Your task to perform on an android device: What's on my calendar tomorrow? Image 0: 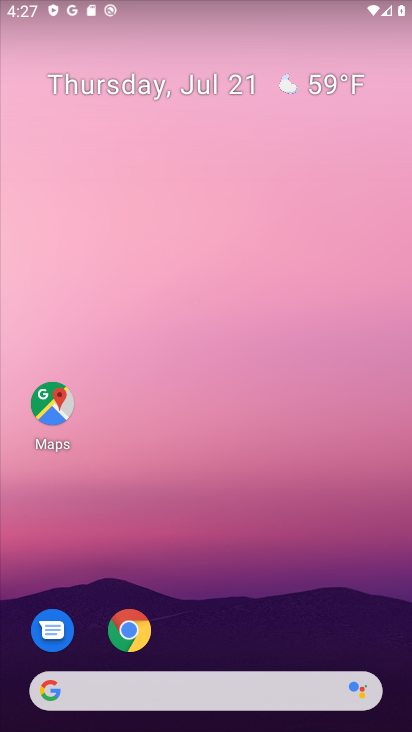
Step 0: drag from (249, 659) to (239, 235)
Your task to perform on an android device: What's on my calendar tomorrow? Image 1: 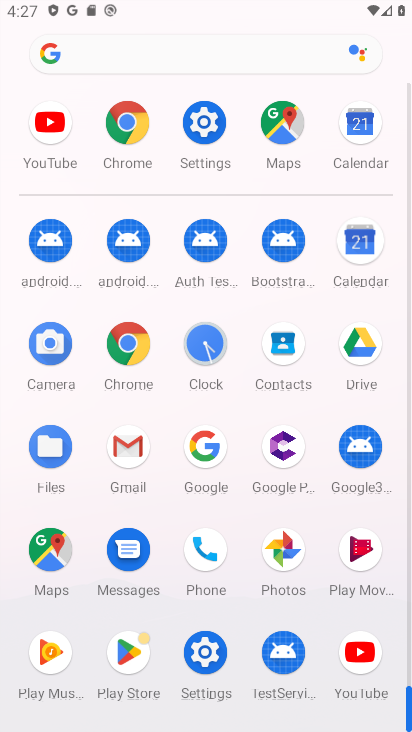
Step 1: click (133, 346)
Your task to perform on an android device: What's on my calendar tomorrow? Image 2: 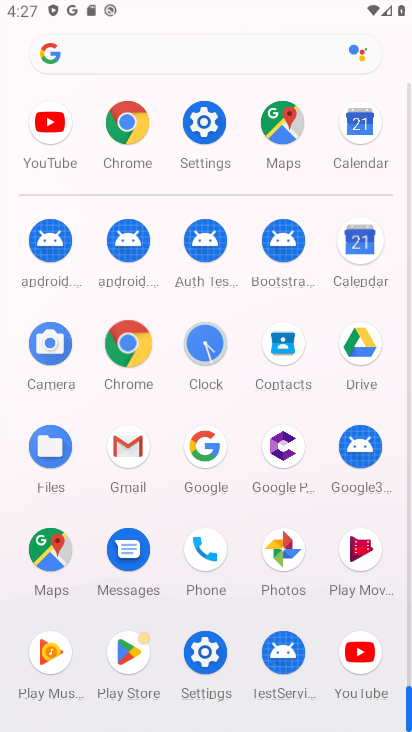
Step 2: click (132, 345)
Your task to perform on an android device: What's on my calendar tomorrow? Image 3: 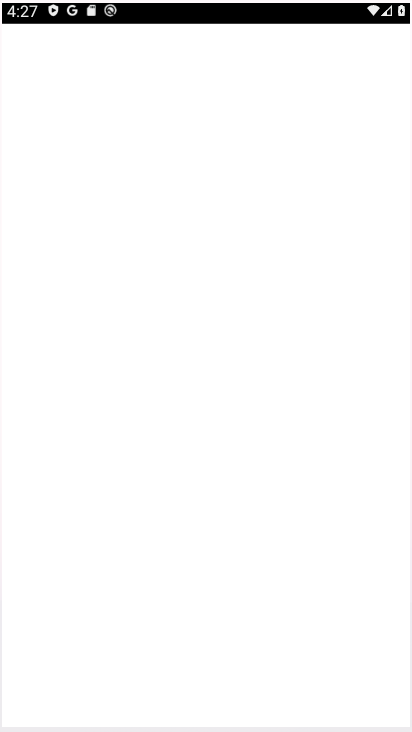
Step 3: click (134, 345)
Your task to perform on an android device: What's on my calendar tomorrow? Image 4: 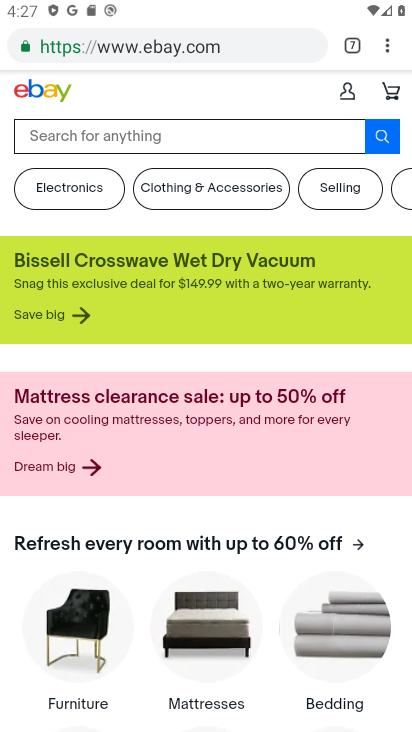
Step 4: drag from (386, 46) to (232, 556)
Your task to perform on an android device: What's on my calendar tomorrow? Image 5: 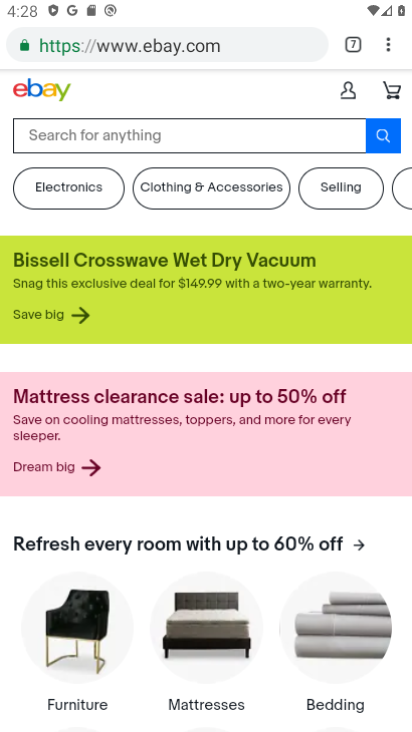
Step 5: click (129, 230)
Your task to perform on an android device: What's on my calendar tomorrow? Image 6: 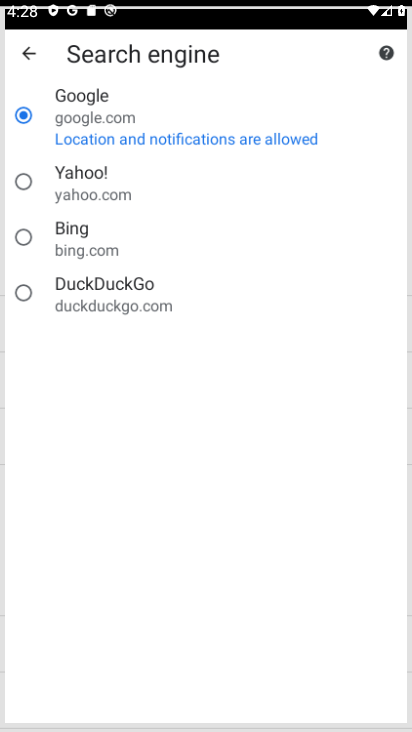
Step 6: press back button
Your task to perform on an android device: What's on my calendar tomorrow? Image 7: 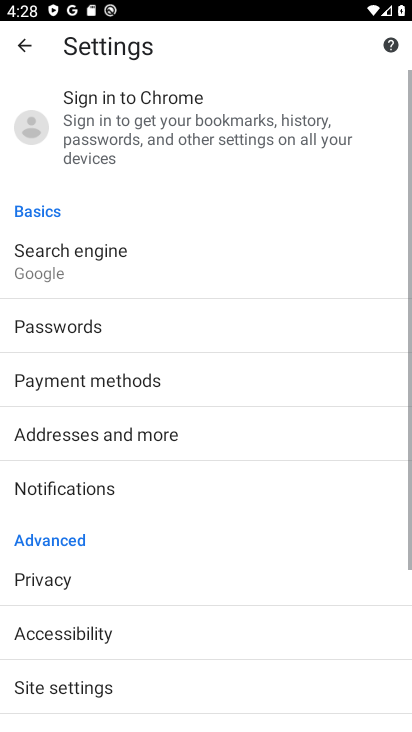
Step 7: click (28, 47)
Your task to perform on an android device: What's on my calendar tomorrow? Image 8: 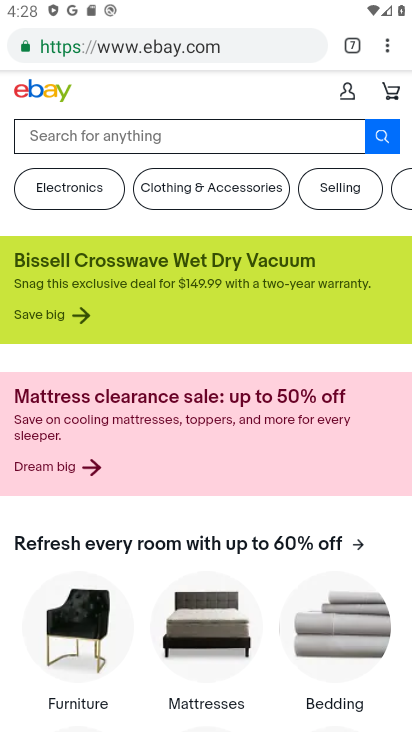
Step 8: press home button
Your task to perform on an android device: What's on my calendar tomorrow? Image 9: 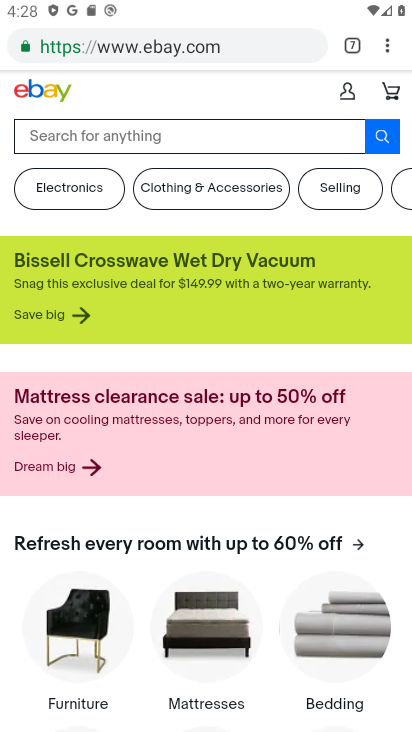
Step 9: press back button
Your task to perform on an android device: What's on my calendar tomorrow? Image 10: 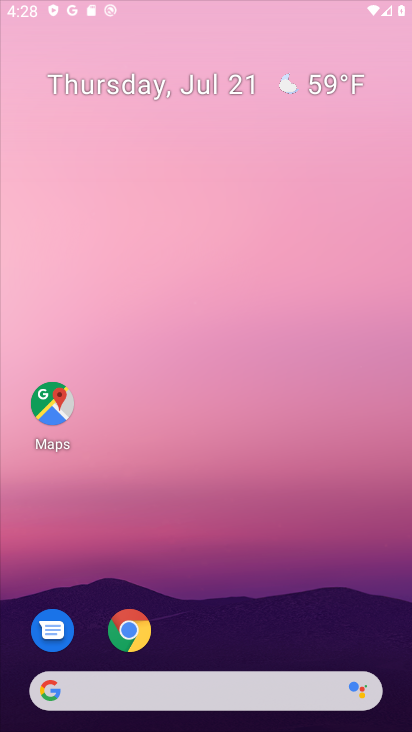
Step 10: press back button
Your task to perform on an android device: What's on my calendar tomorrow? Image 11: 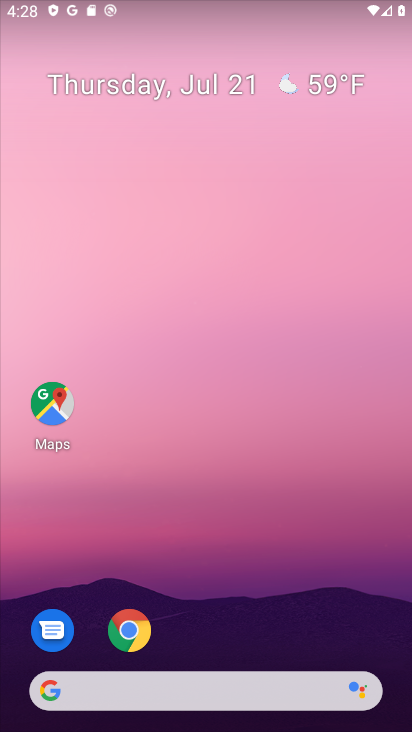
Step 11: drag from (236, 564) to (264, 206)
Your task to perform on an android device: What's on my calendar tomorrow? Image 12: 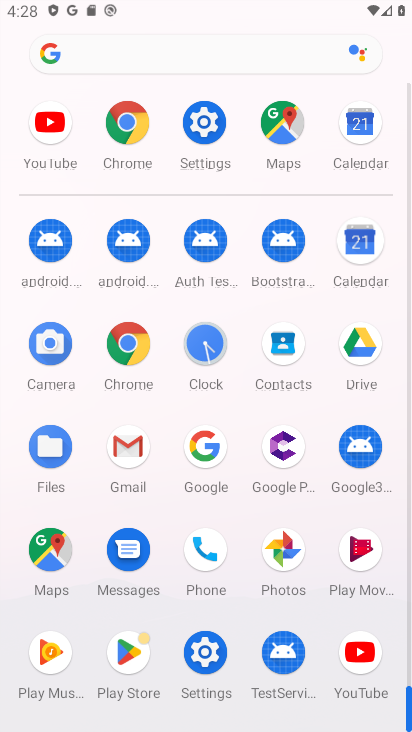
Step 12: click (356, 248)
Your task to perform on an android device: What's on my calendar tomorrow? Image 13: 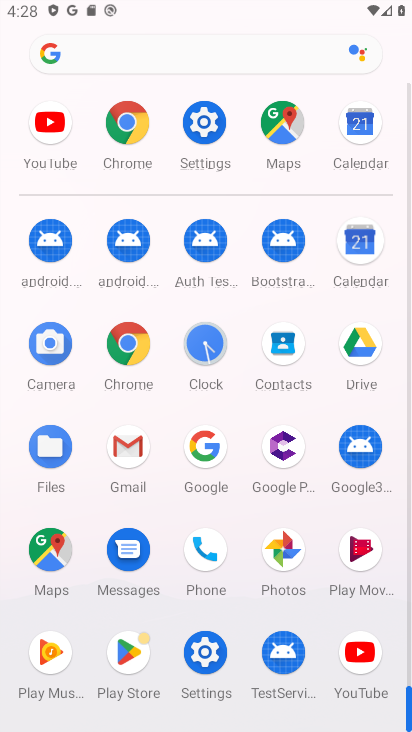
Step 13: click (356, 248)
Your task to perform on an android device: What's on my calendar tomorrow? Image 14: 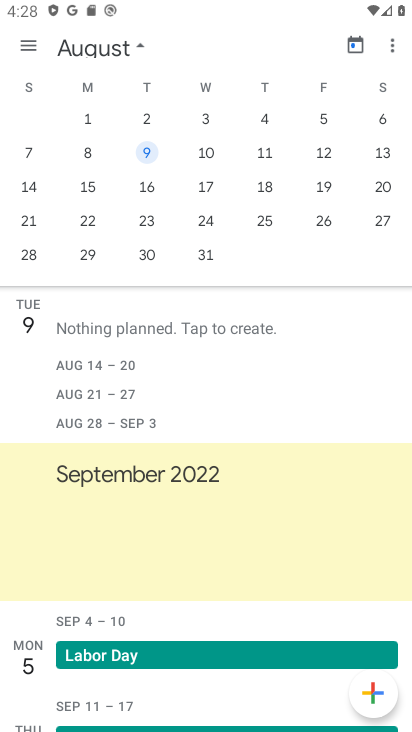
Step 14: task complete